Your task to perform on an android device: Go to wifi settings Image 0: 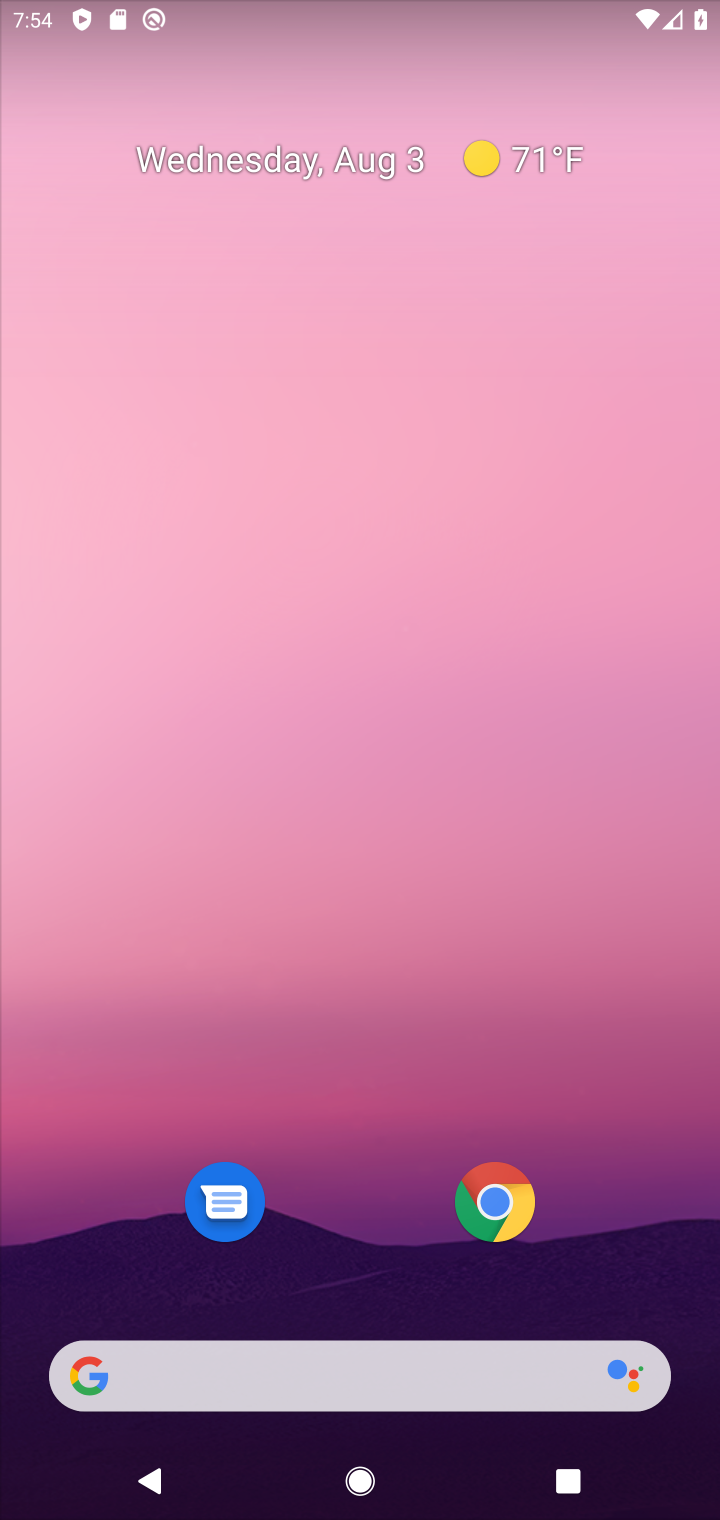
Step 0: drag from (359, 1388) to (418, 286)
Your task to perform on an android device: Go to wifi settings Image 1: 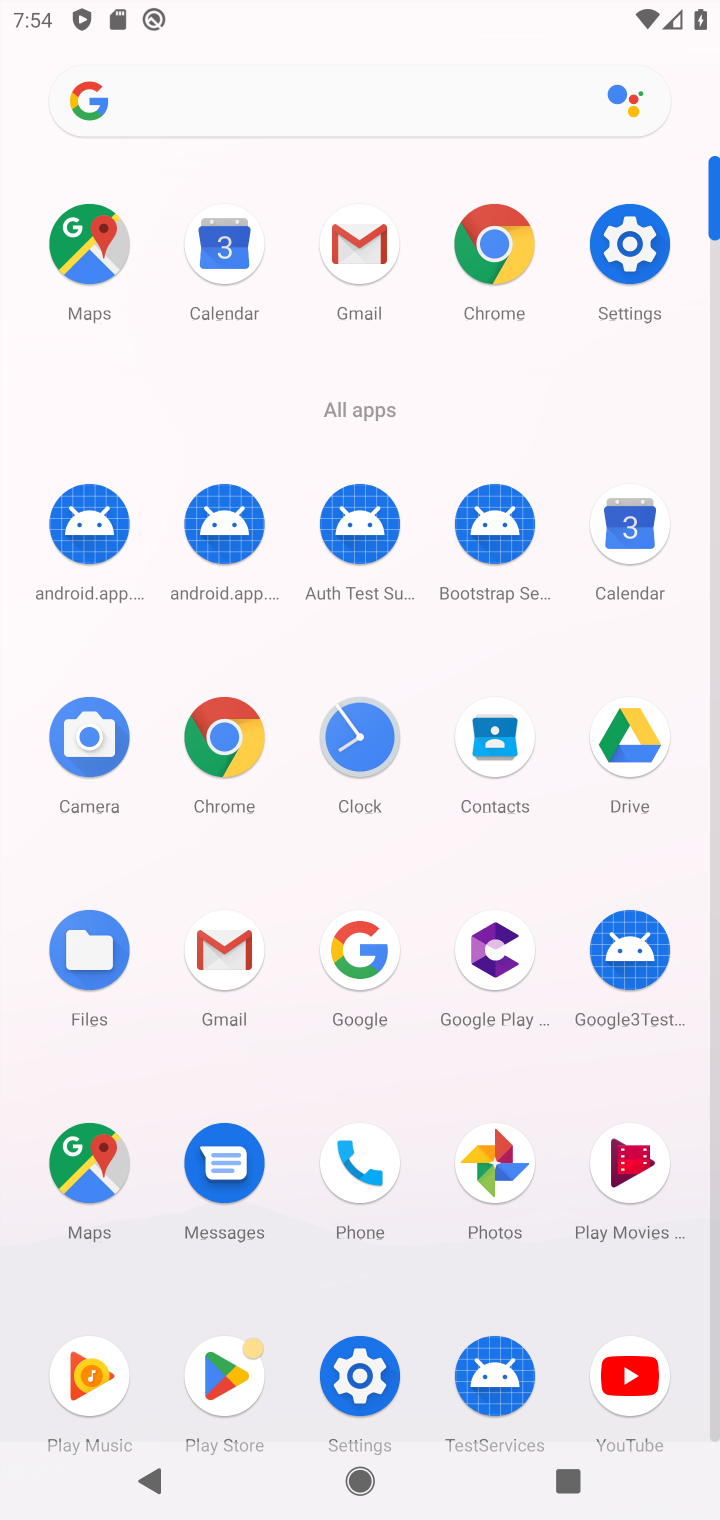
Step 1: click (630, 249)
Your task to perform on an android device: Go to wifi settings Image 2: 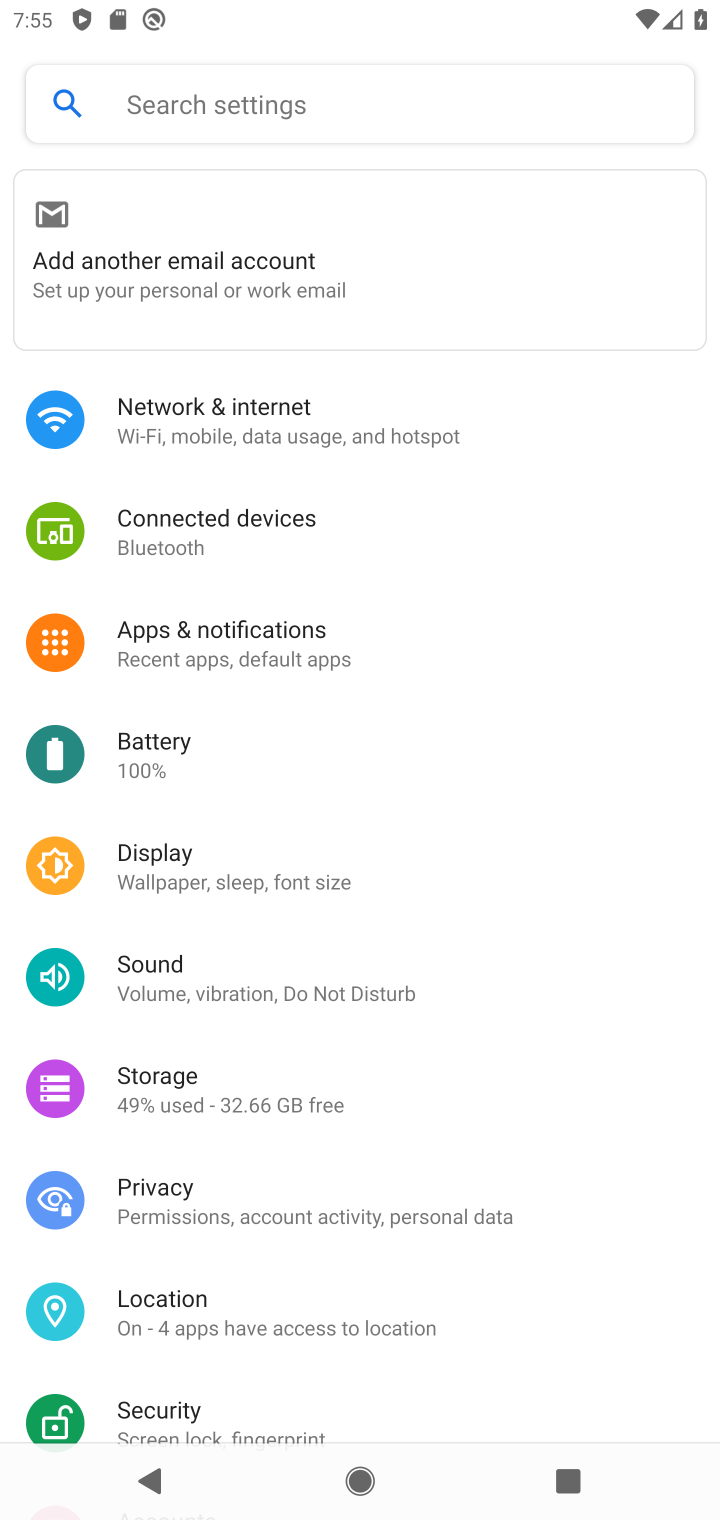
Step 2: click (223, 437)
Your task to perform on an android device: Go to wifi settings Image 3: 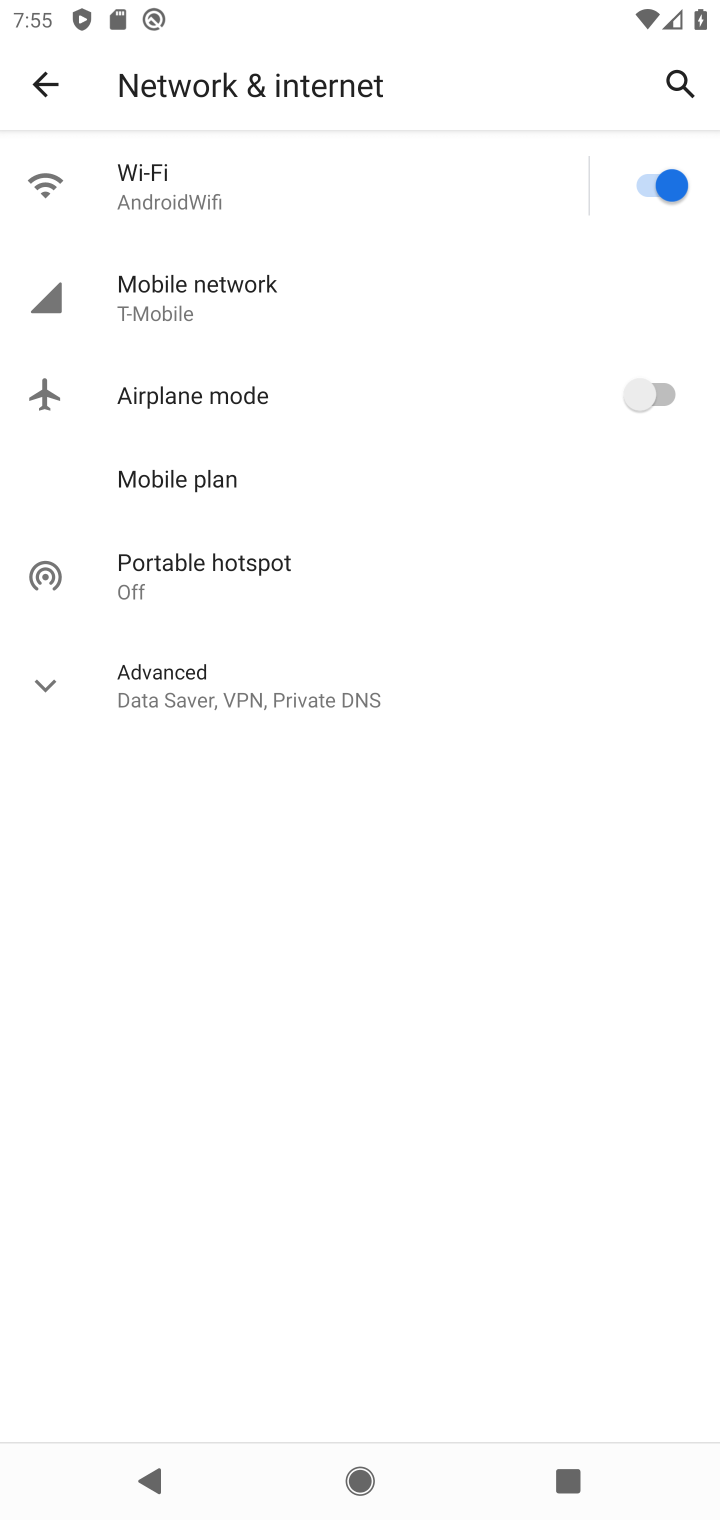
Step 3: click (182, 202)
Your task to perform on an android device: Go to wifi settings Image 4: 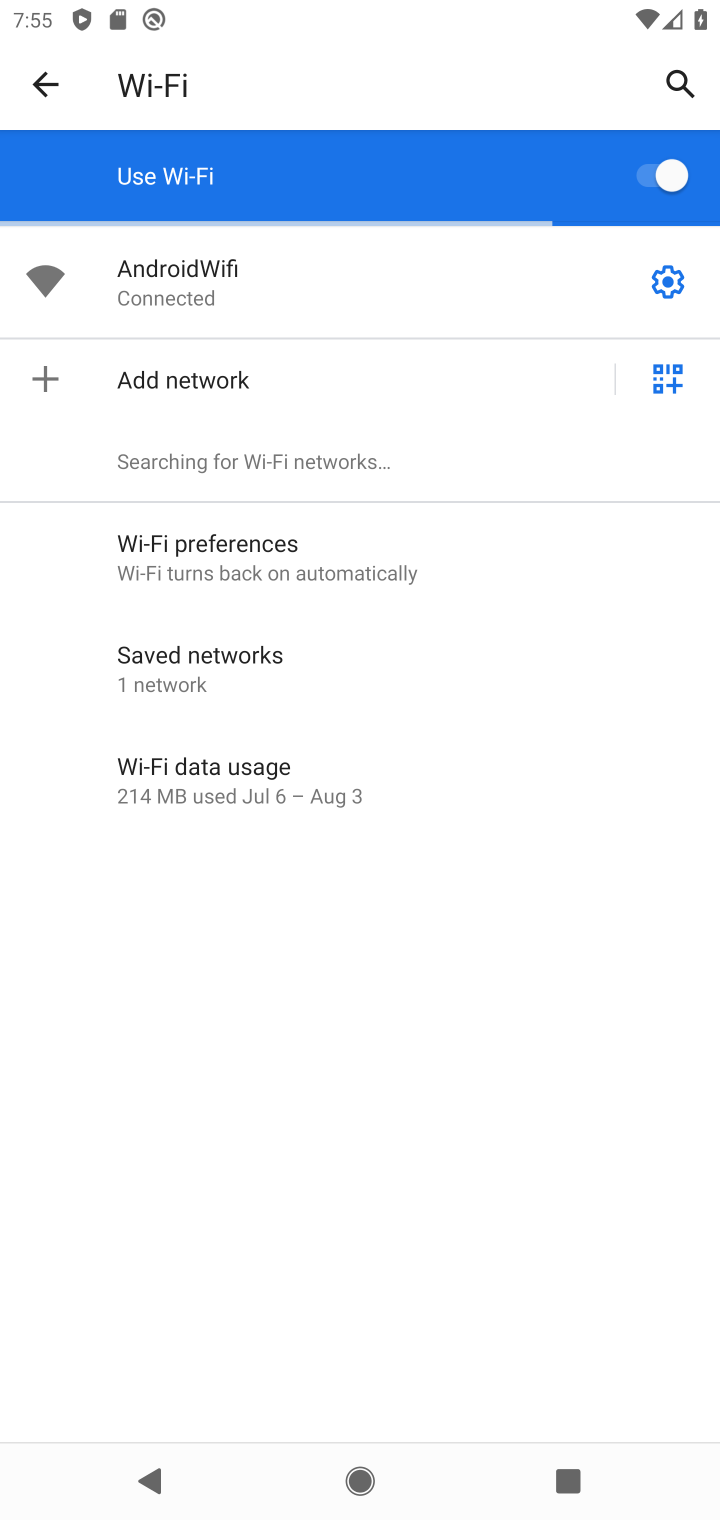
Step 4: click (670, 284)
Your task to perform on an android device: Go to wifi settings Image 5: 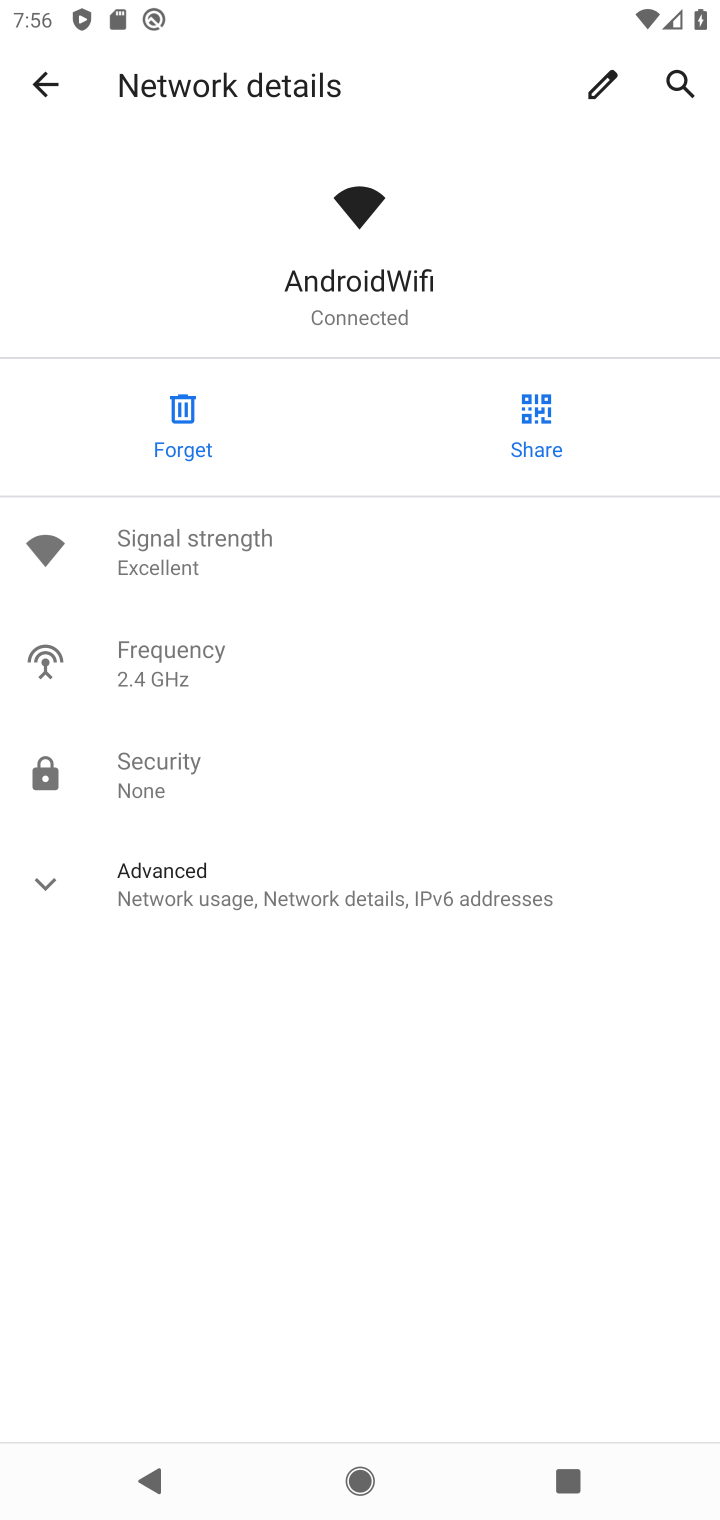
Step 5: task complete